Your task to perform on an android device: Open Google Image 0: 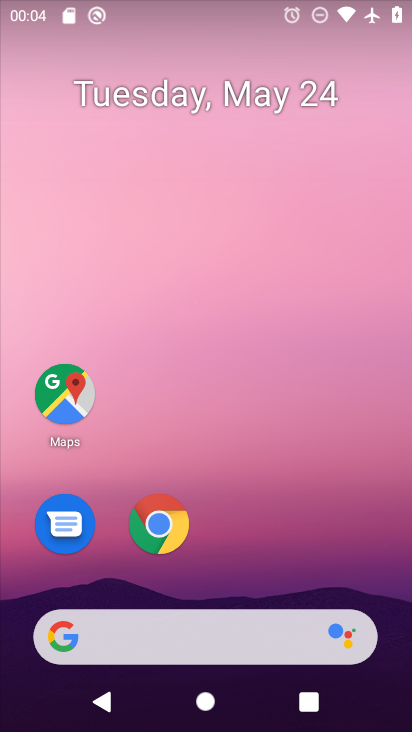
Step 0: drag from (205, 493) to (198, 211)
Your task to perform on an android device: Open Google Image 1: 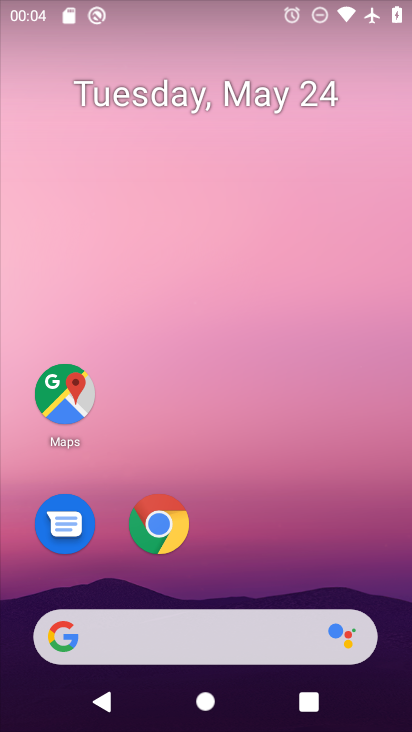
Step 1: drag from (229, 576) to (227, 252)
Your task to perform on an android device: Open Google Image 2: 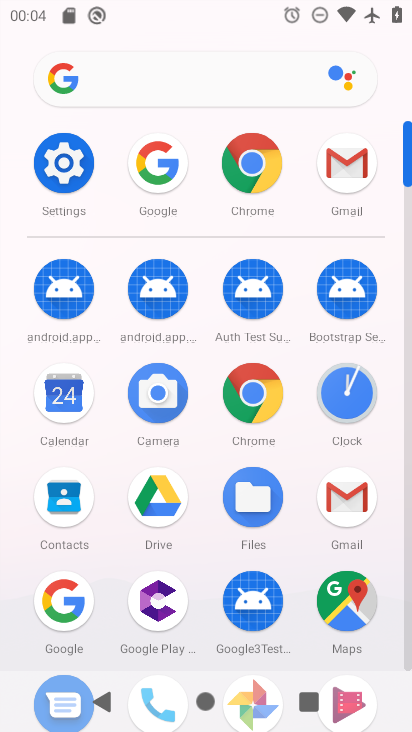
Step 2: click (161, 203)
Your task to perform on an android device: Open Google Image 3: 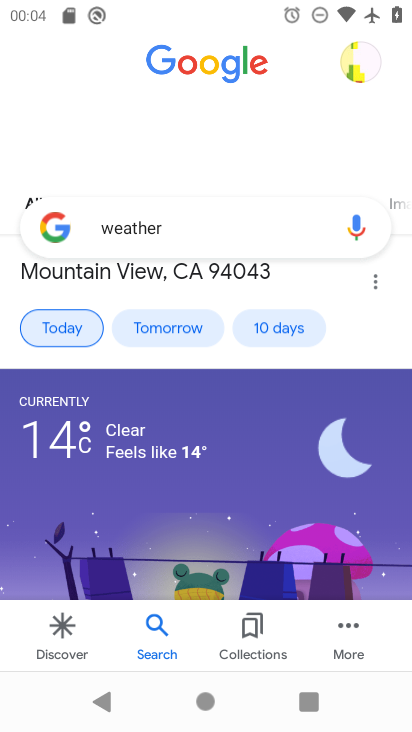
Step 3: task complete